Your task to perform on an android device: choose inbox layout in the gmail app Image 0: 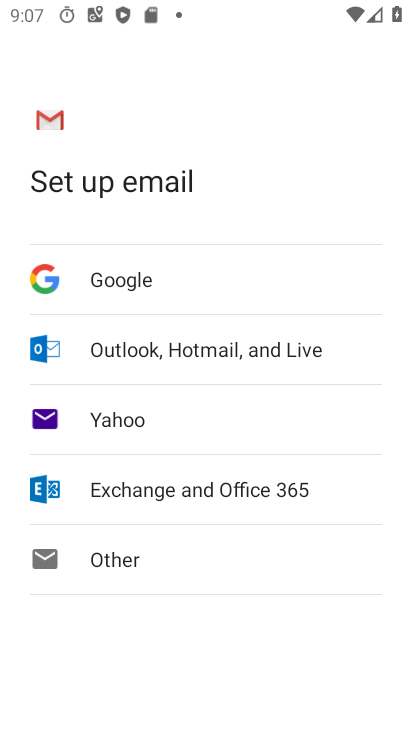
Step 0: press home button
Your task to perform on an android device: choose inbox layout in the gmail app Image 1: 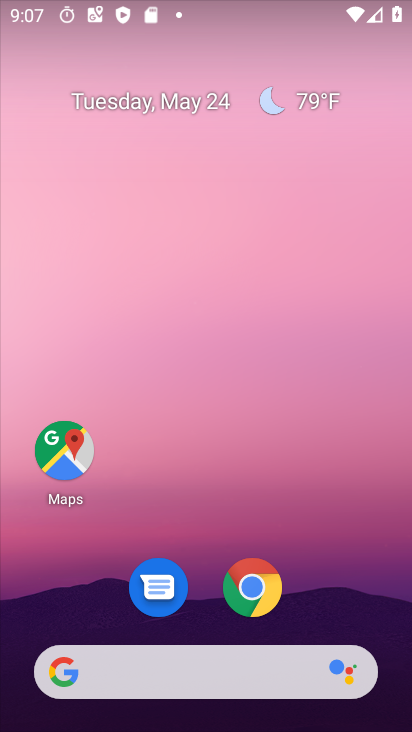
Step 1: drag from (329, 600) to (239, 86)
Your task to perform on an android device: choose inbox layout in the gmail app Image 2: 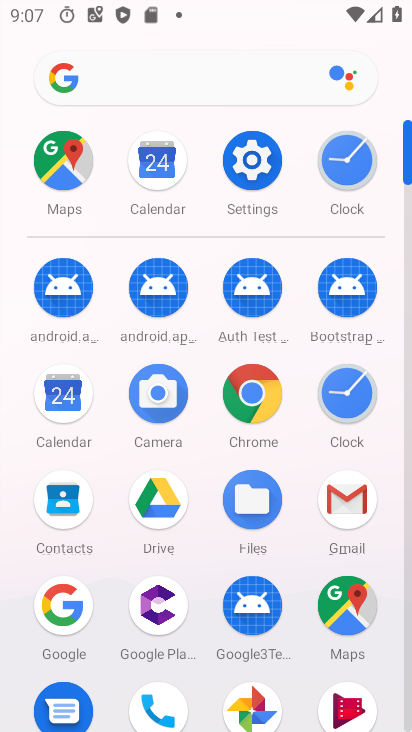
Step 2: click (346, 499)
Your task to perform on an android device: choose inbox layout in the gmail app Image 3: 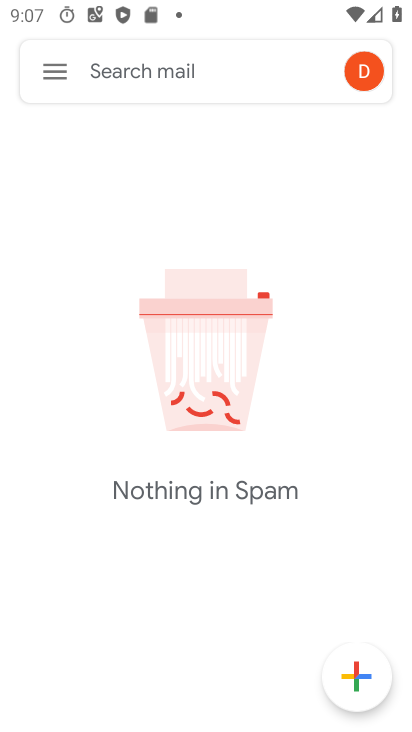
Step 3: click (56, 71)
Your task to perform on an android device: choose inbox layout in the gmail app Image 4: 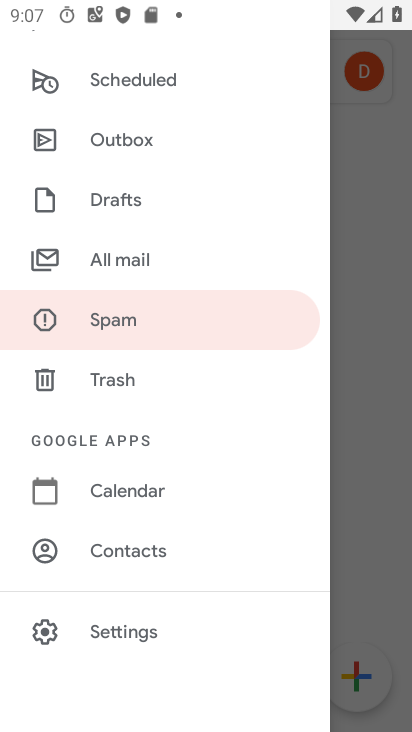
Step 4: click (134, 635)
Your task to perform on an android device: choose inbox layout in the gmail app Image 5: 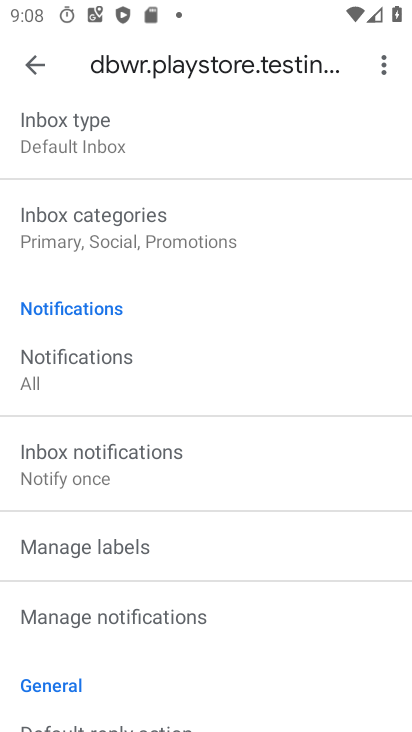
Step 5: click (97, 137)
Your task to perform on an android device: choose inbox layout in the gmail app Image 6: 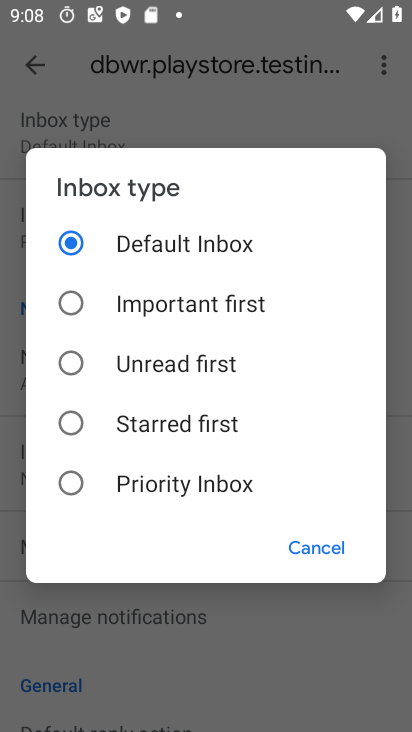
Step 6: click (79, 310)
Your task to perform on an android device: choose inbox layout in the gmail app Image 7: 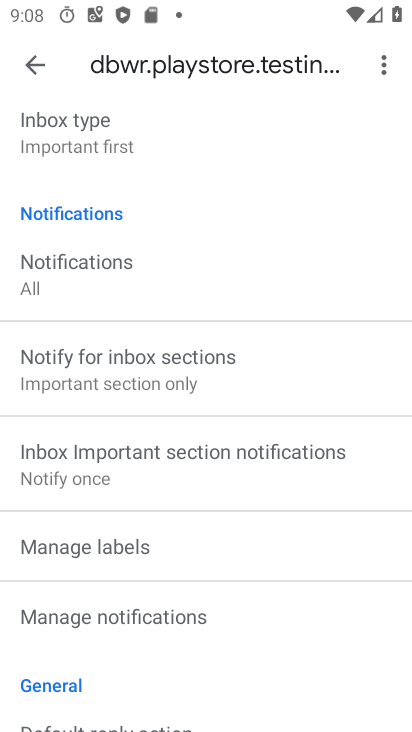
Step 7: task complete